Your task to perform on an android device: turn off wifi Image 0: 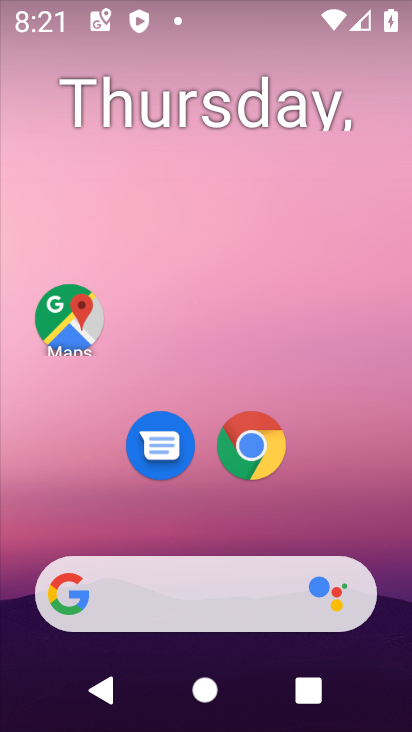
Step 0: drag from (185, 1) to (237, 499)
Your task to perform on an android device: turn off wifi Image 1: 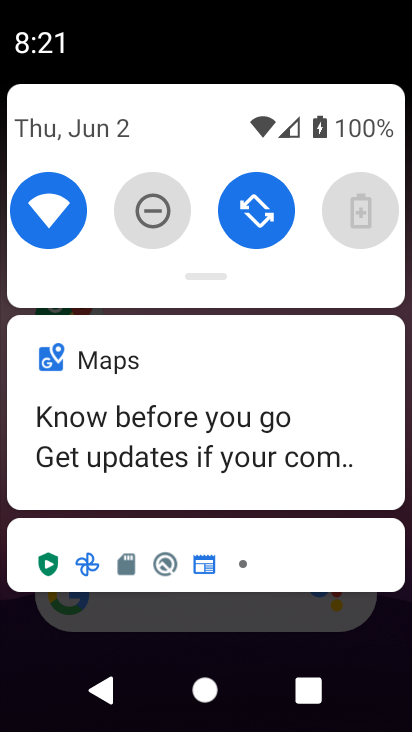
Step 1: click (44, 212)
Your task to perform on an android device: turn off wifi Image 2: 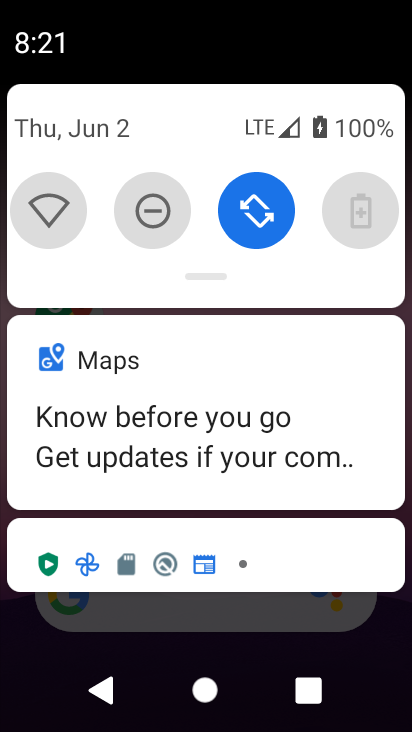
Step 2: task complete